Your task to perform on an android device: check out phone information Image 0: 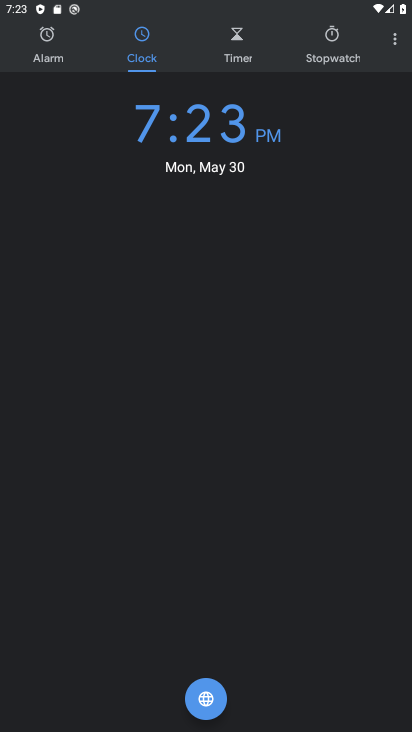
Step 0: press home button
Your task to perform on an android device: check out phone information Image 1: 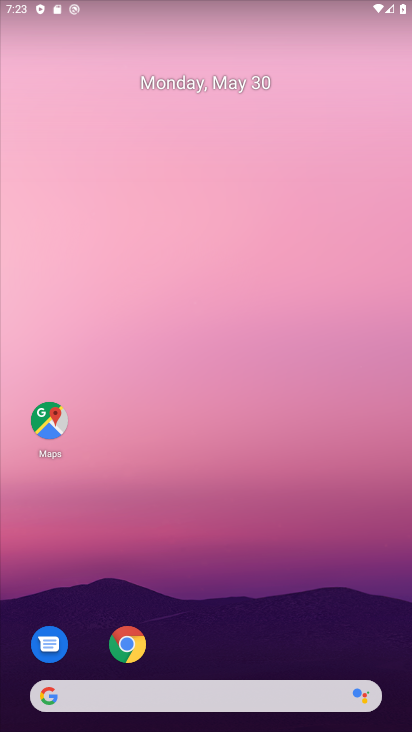
Step 1: drag from (232, 640) to (152, 55)
Your task to perform on an android device: check out phone information Image 2: 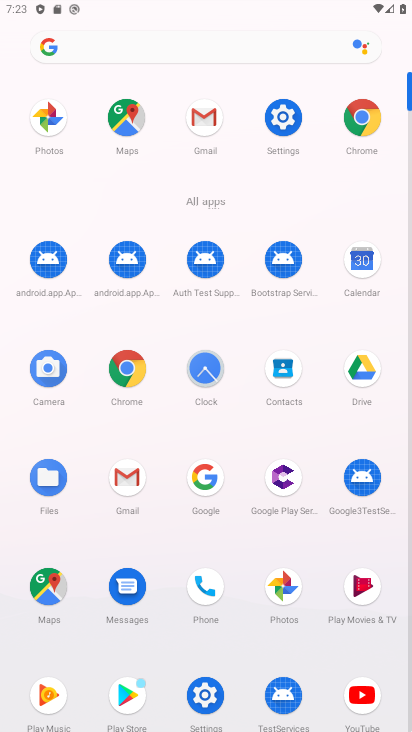
Step 2: click (282, 115)
Your task to perform on an android device: check out phone information Image 3: 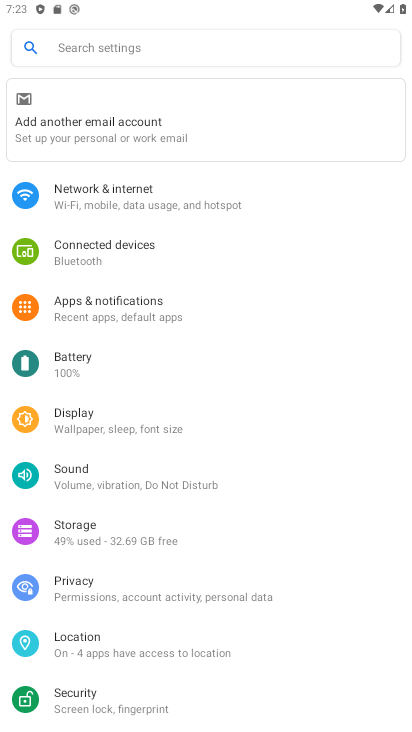
Step 3: drag from (104, 390) to (131, 328)
Your task to perform on an android device: check out phone information Image 4: 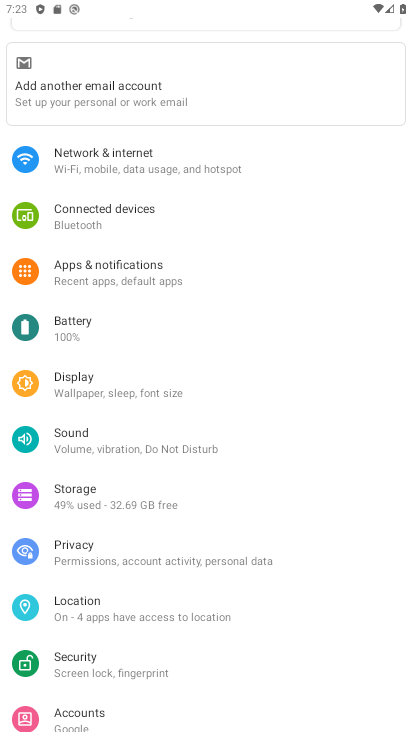
Step 4: drag from (91, 428) to (131, 363)
Your task to perform on an android device: check out phone information Image 5: 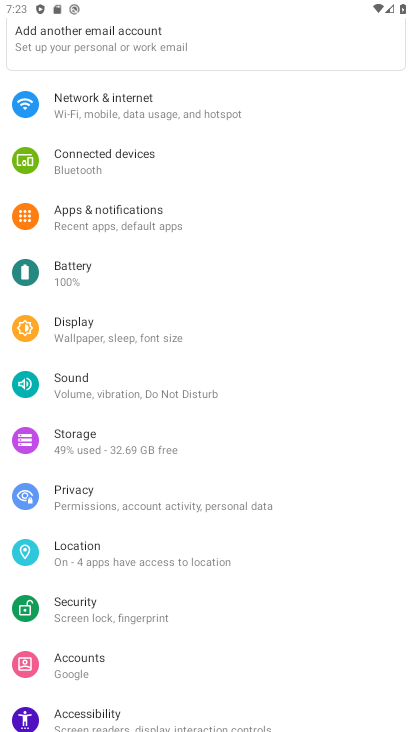
Step 5: drag from (79, 462) to (129, 397)
Your task to perform on an android device: check out phone information Image 6: 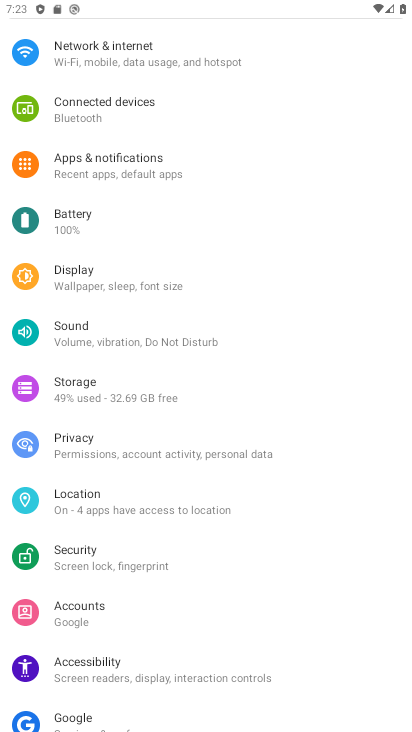
Step 6: drag from (70, 519) to (111, 478)
Your task to perform on an android device: check out phone information Image 7: 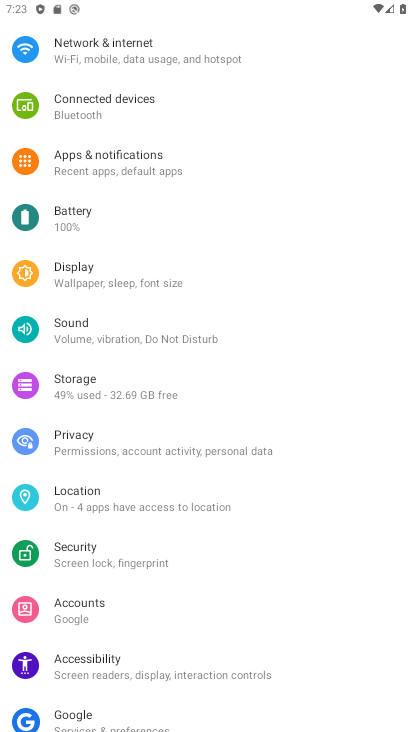
Step 7: drag from (77, 529) to (139, 454)
Your task to perform on an android device: check out phone information Image 8: 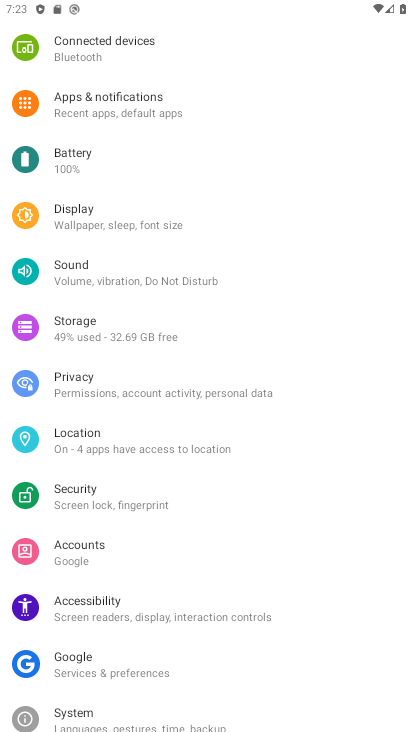
Step 8: drag from (60, 577) to (122, 506)
Your task to perform on an android device: check out phone information Image 9: 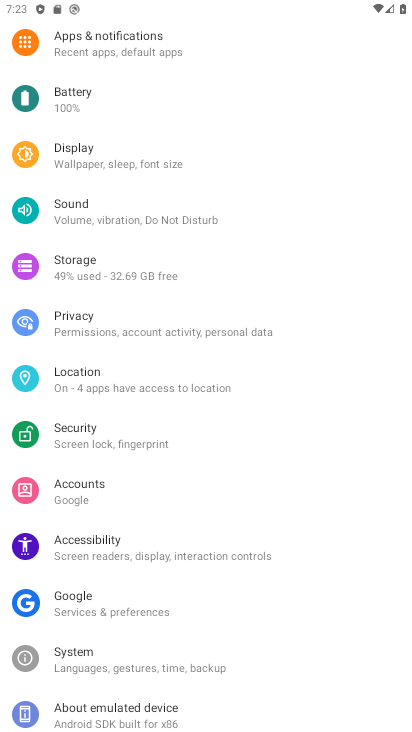
Step 9: drag from (72, 581) to (149, 497)
Your task to perform on an android device: check out phone information Image 10: 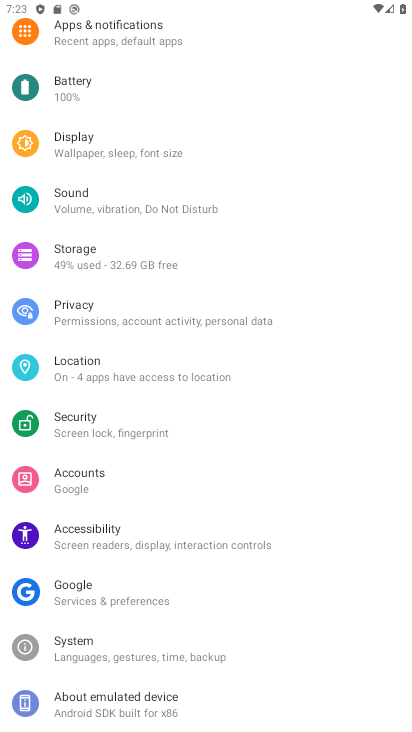
Step 10: click (129, 693)
Your task to perform on an android device: check out phone information Image 11: 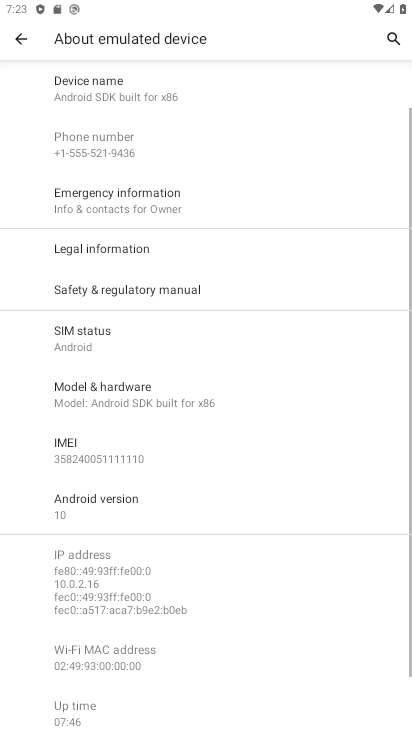
Step 11: task complete